Your task to perform on an android device: Open the map Image 0: 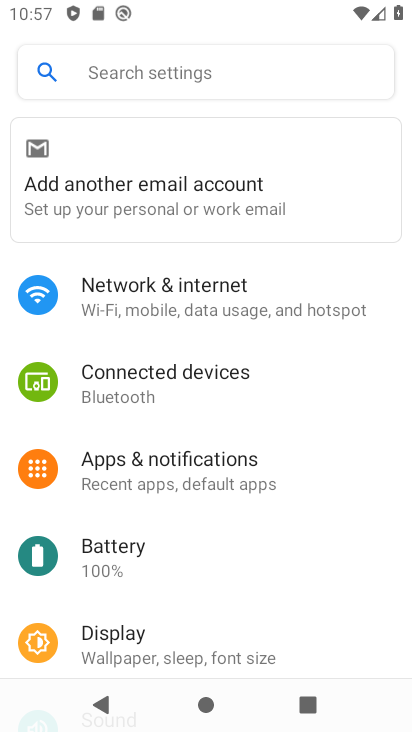
Step 0: press home button
Your task to perform on an android device: Open the map Image 1: 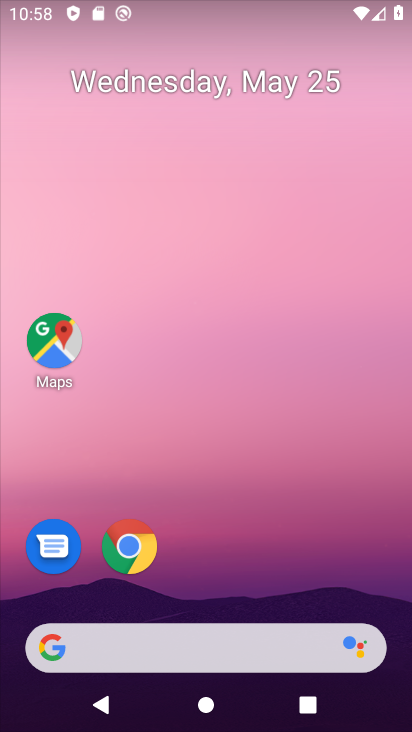
Step 1: drag from (361, 512) to (325, 192)
Your task to perform on an android device: Open the map Image 2: 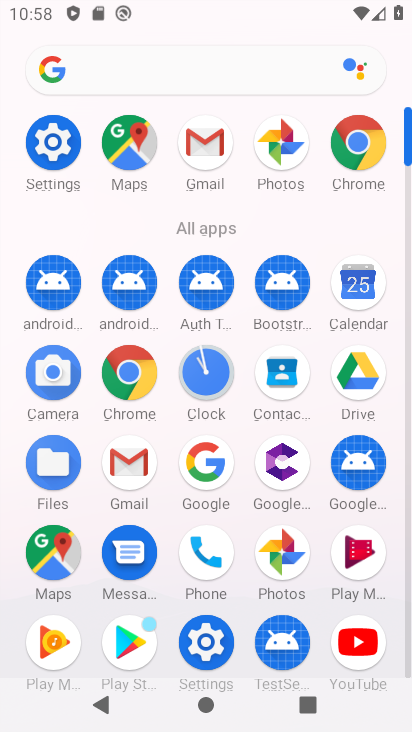
Step 2: click (55, 549)
Your task to perform on an android device: Open the map Image 3: 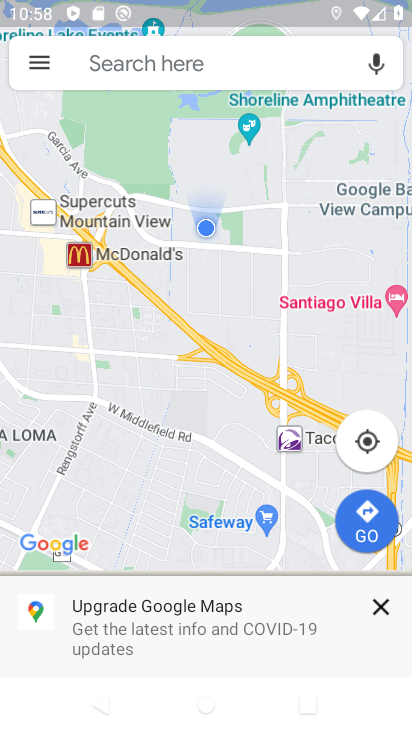
Step 3: task complete